Your task to perform on an android device: all mails in gmail Image 0: 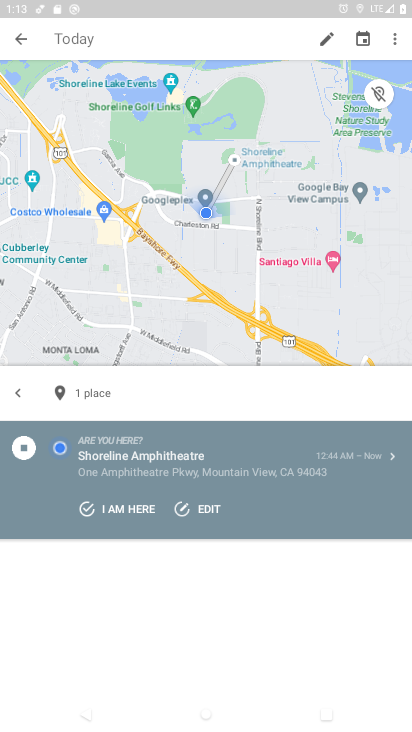
Step 0: press home button
Your task to perform on an android device: all mails in gmail Image 1: 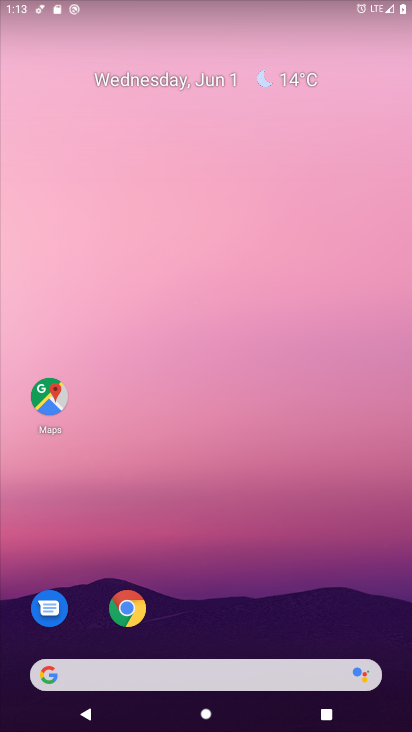
Step 1: drag from (204, 625) to (304, 117)
Your task to perform on an android device: all mails in gmail Image 2: 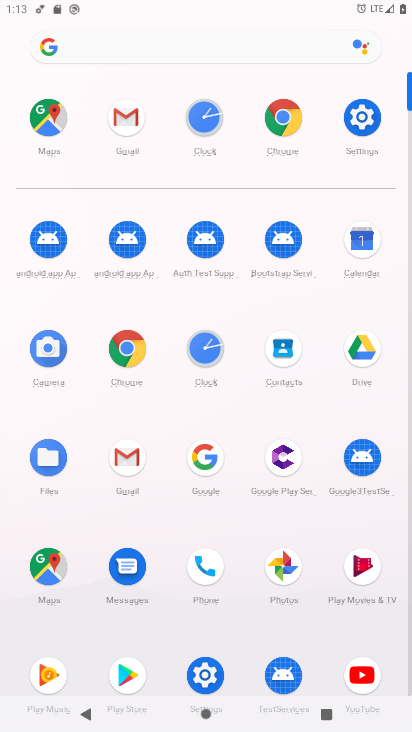
Step 2: click (138, 474)
Your task to perform on an android device: all mails in gmail Image 3: 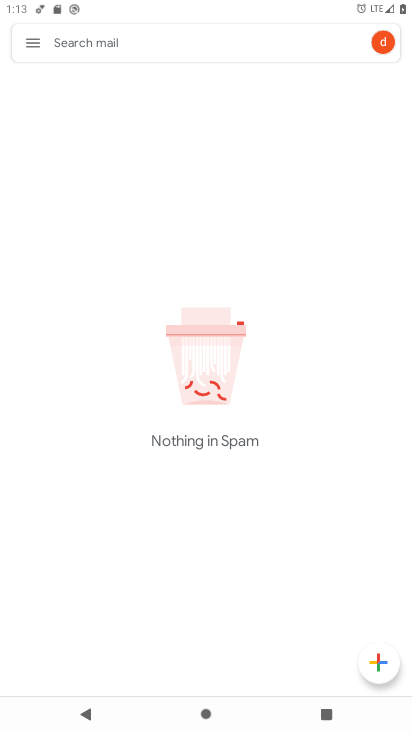
Step 3: click (23, 27)
Your task to perform on an android device: all mails in gmail Image 4: 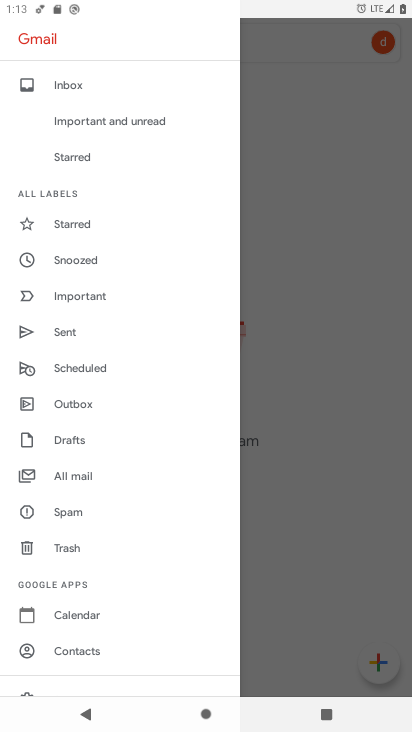
Step 4: click (84, 466)
Your task to perform on an android device: all mails in gmail Image 5: 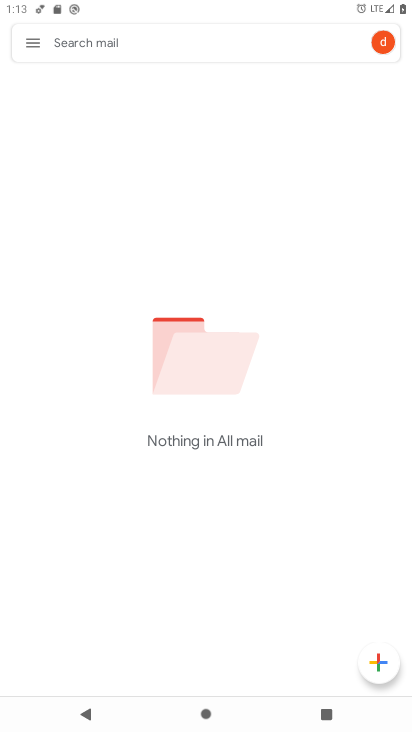
Step 5: task complete